Your task to perform on an android device: turn off javascript in the chrome app Image 0: 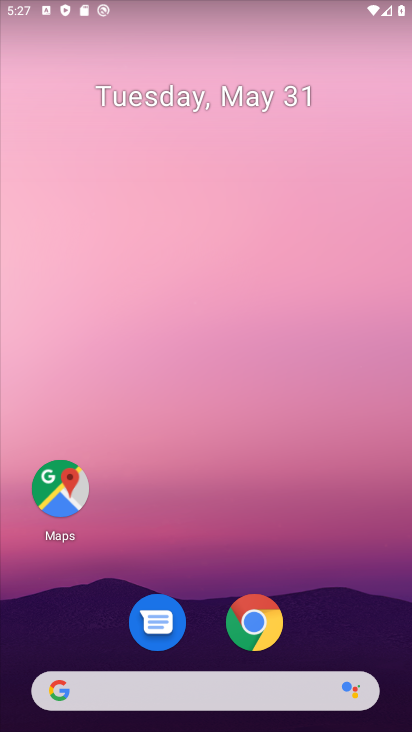
Step 0: drag from (277, 646) to (286, 60)
Your task to perform on an android device: turn off javascript in the chrome app Image 1: 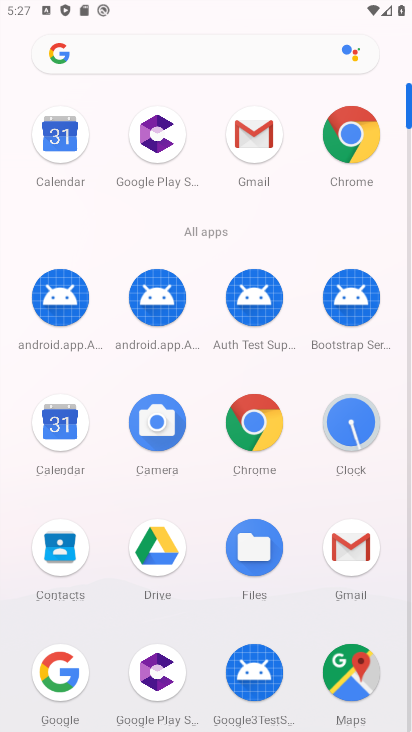
Step 1: click (236, 421)
Your task to perform on an android device: turn off javascript in the chrome app Image 2: 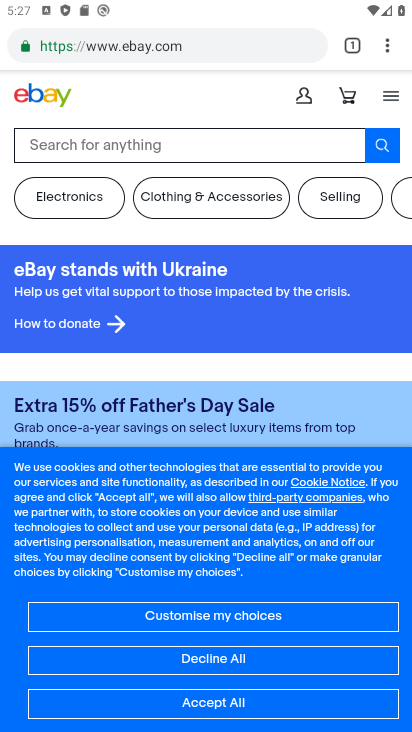
Step 2: drag from (387, 50) to (257, 535)
Your task to perform on an android device: turn off javascript in the chrome app Image 3: 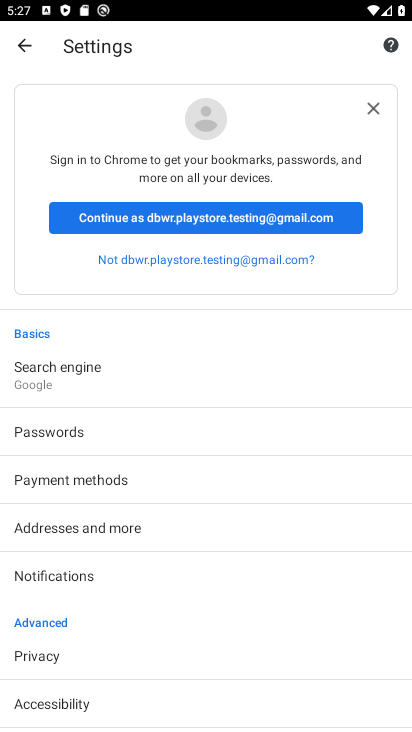
Step 3: drag from (97, 610) to (93, 198)
Your task to perform on an android device: turn off javascript in the chrome app Image 4: 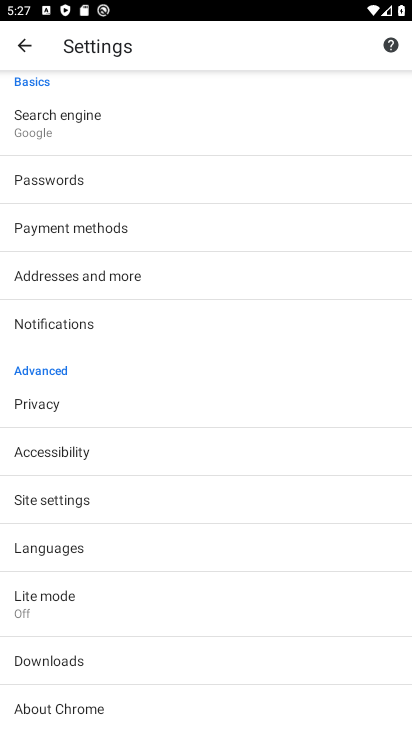
Step 4: click (94, 505)
Your task to perform on an android device: turn off javascript in the chrome app Image 5: 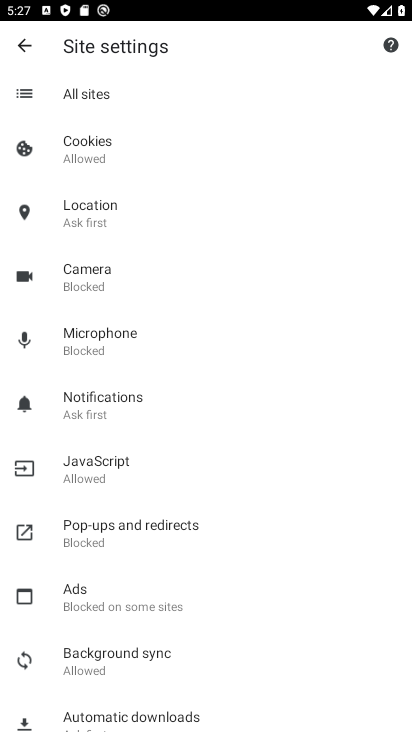
Step 5: click (111, 473)
Your task to perform on an android device: turn off javascript in the chrome app Image 6: 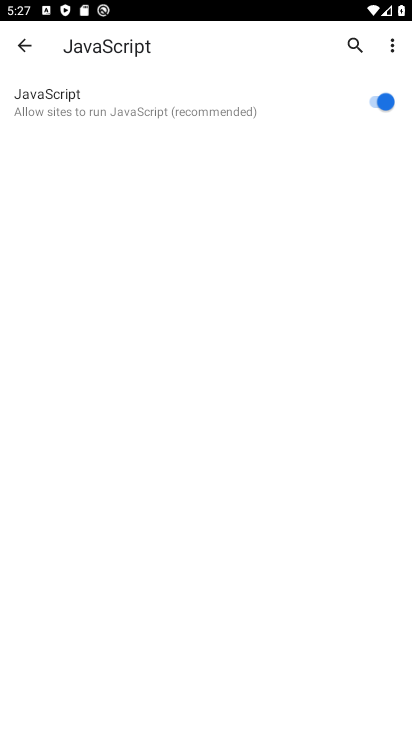
Step 6: click (380, 100)
Your task to perform on an android device: turn off javascript in the chrome app Image 7: 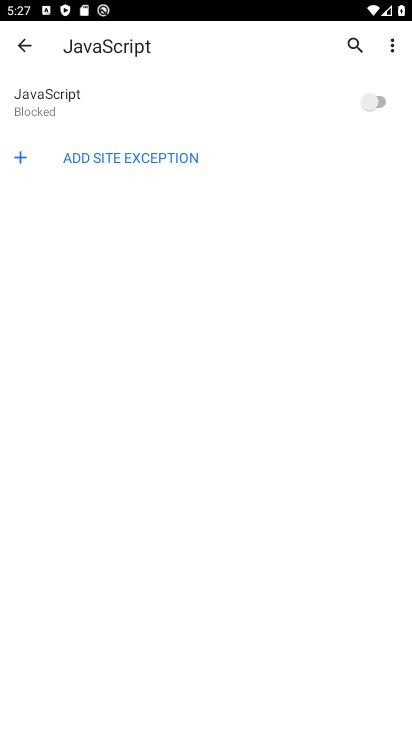
Step 7: task complete